Your task to perform on an android device: check battery use Image 0: 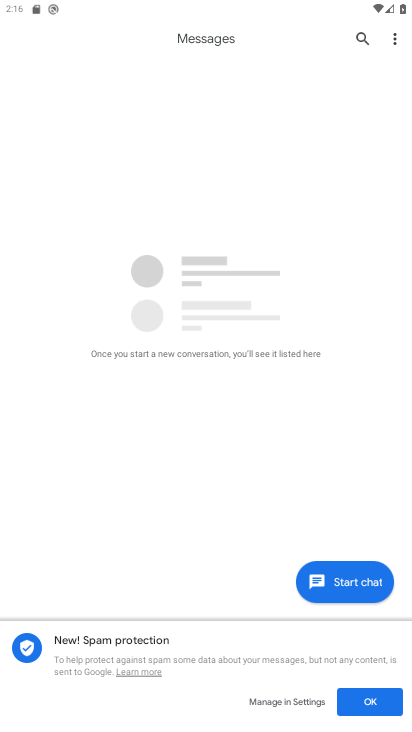
Step 0: press home button
Your task to perform on an android device: check battery use Image 1: 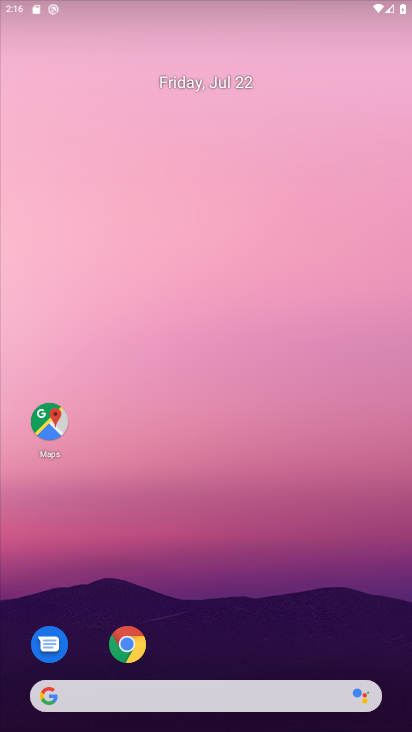
Step 1: drag from (182, 646) to (181, 266)
Your task to perform on an android device: check battery use Image 2: 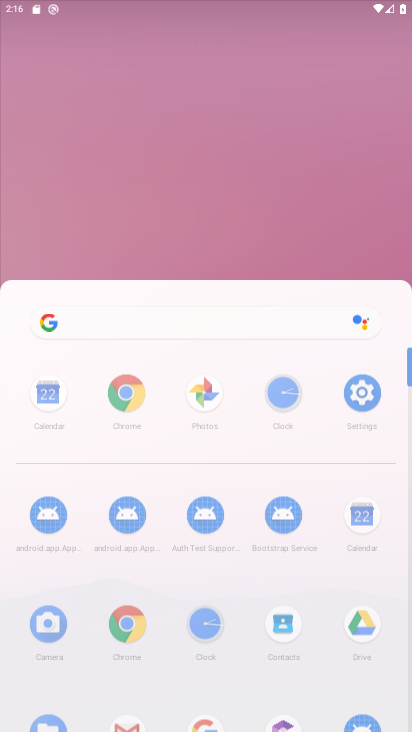
Step 2: click (252, 381)
Your task to perform on an android device: check battery use Image 3: 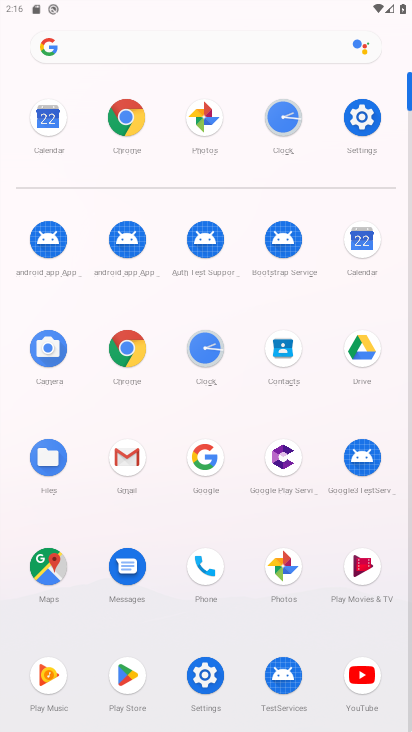
Step 3: click (359, 118)
Your task to perform on an android device: check battery use Image 4: 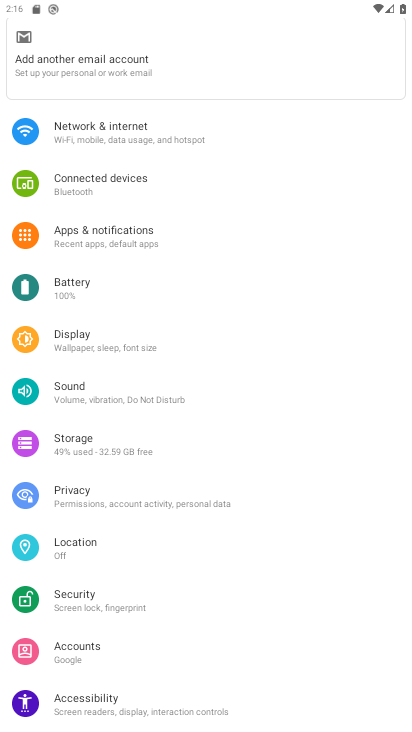
Step 4: click (97, 284)
Your task to perform on an android device: check battery use Image 5: 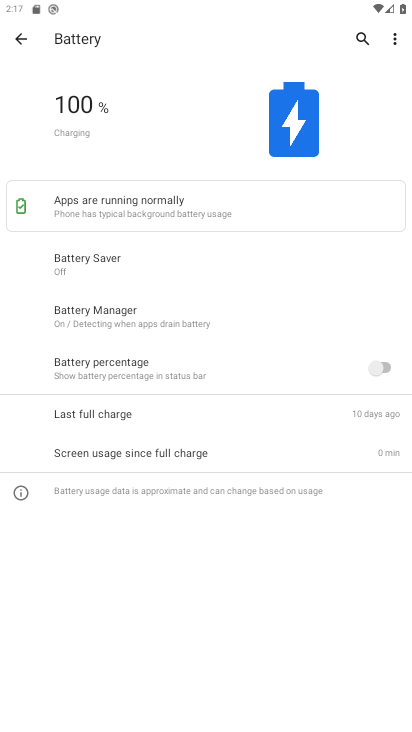
Step 5: task complete